Your task to perform on an android device: toggle sleep mode Image 0: 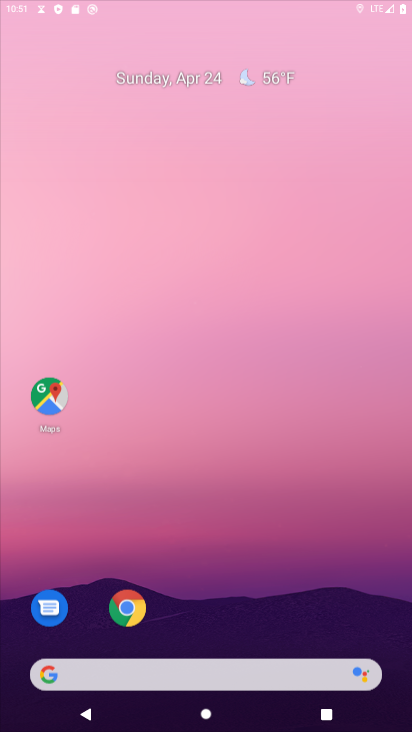
Step 0: click (130, 604)
Your task to perform on an android device: toggle sleep mode Image 1: 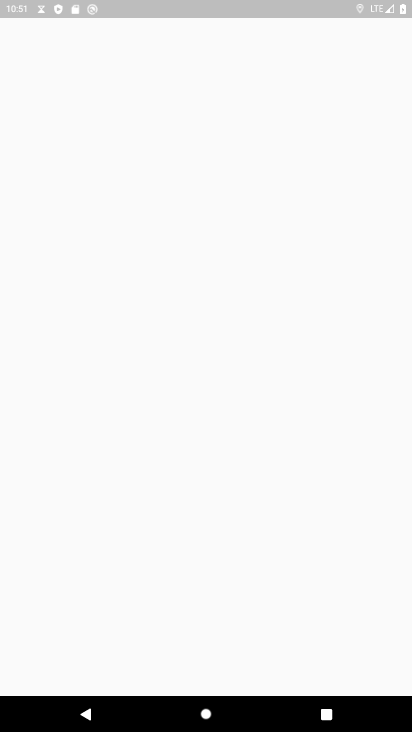
Step 1: press home button
Your task to perform on an android device: toggle sleep mode Image 2: 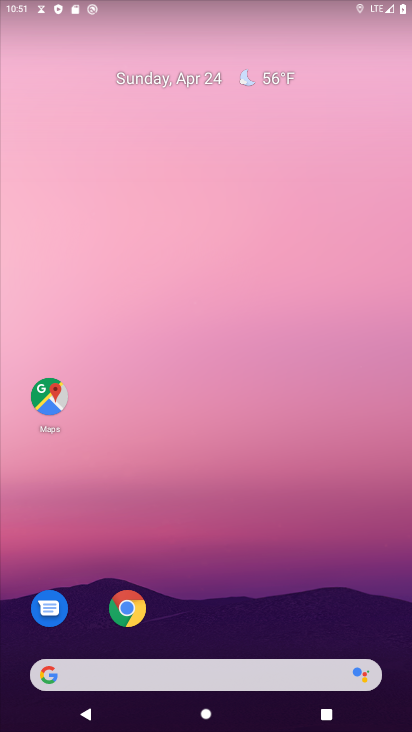
Step 2: drag from (211, 647) to (252, 7)
Your task to perform on an android device: toggle sleep mode Image 3: 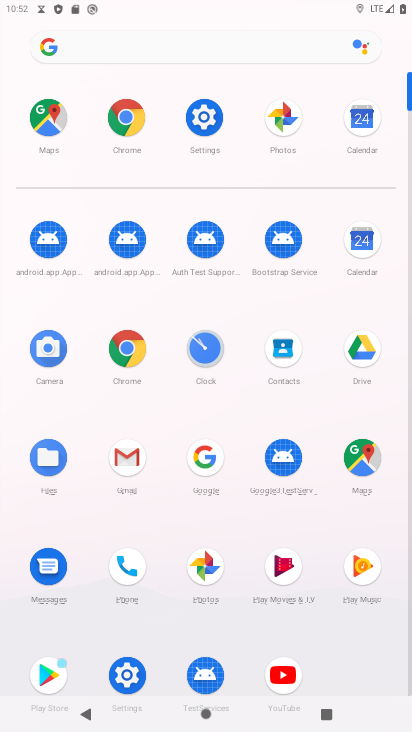
Step 3: click (202, 119)
Your task to perform on an android device: toggle sleep mode Image 4: 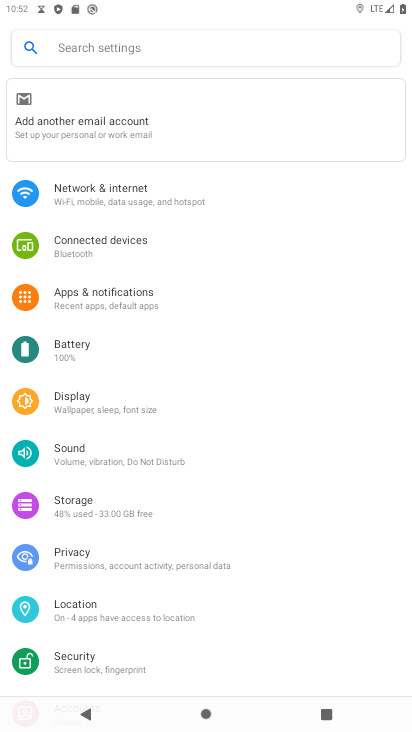
Step 4: click (71, 389)
Your task to perform on an android device: toggle sleep mode Image 5: 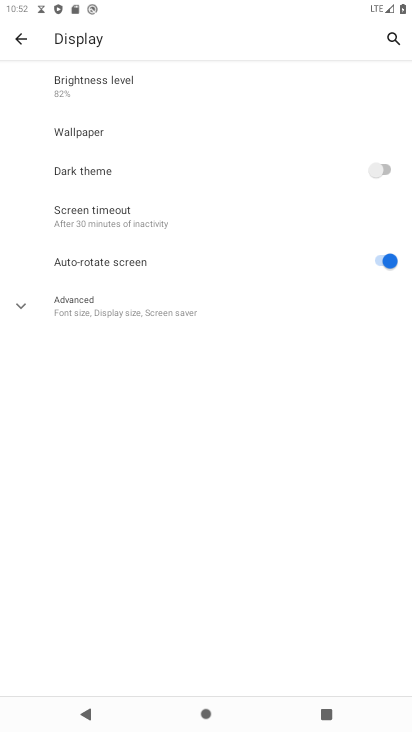
Step 5: task complete